Your task to perform on an android device: open chrome privacy settings Image 0: 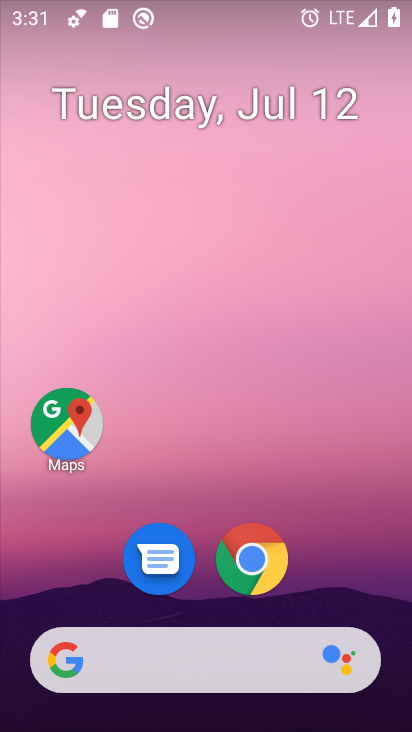
Step 0: drag from (344, 593) to (359, 77)
Your task to perform on an android device: open chrome privacy settings Image 1: 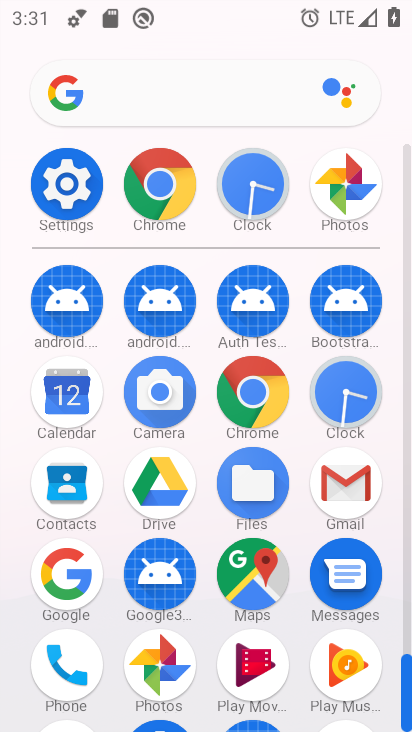
Step 1: click (267, 387)
Your task to perform on an android device: open chrome privacy settings Image 2: 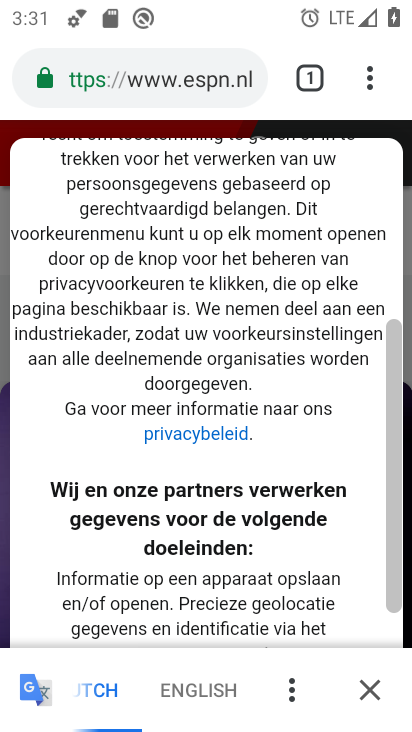
Step 2: click (369, 85)
Your task to perform on an android device: open chrome privacy settings Image 3: 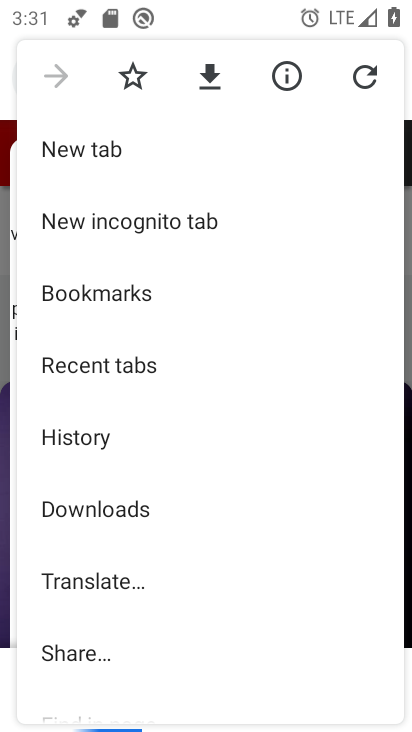
Step 3: drag from (324, 413) to (323, 341)
Your task to perform on an android device: open chrome privacy settings Image 4: 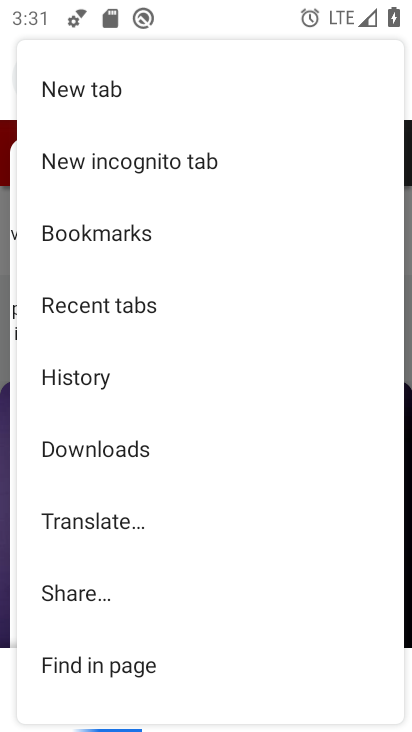
Step 4: drag from (325, 426) to (328, 344)
Your task to perform on an android device: open chrome privacy settings Image 5: 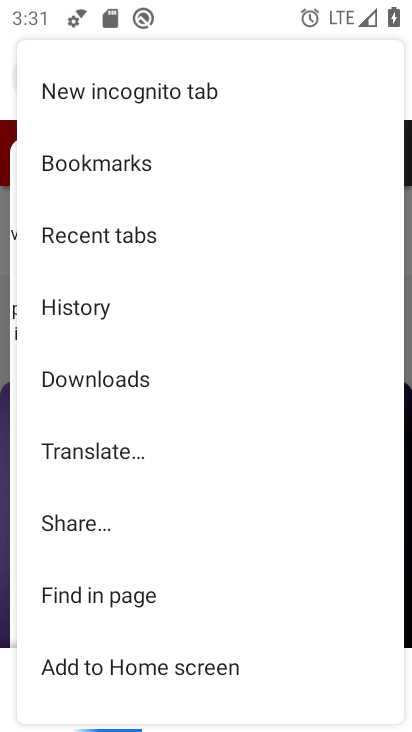
Step 5: drag from (321, 439) to (322, 273)
Your task to perform on an android device: open chrome privacy settings Image 6: 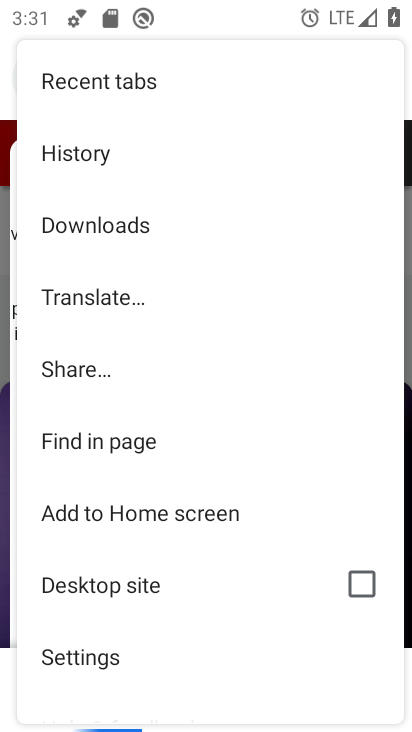
Step 6: drag from (293, 437) to (298, 310)
Your task to perform on an android device: open chrome privacy settings Image 7: 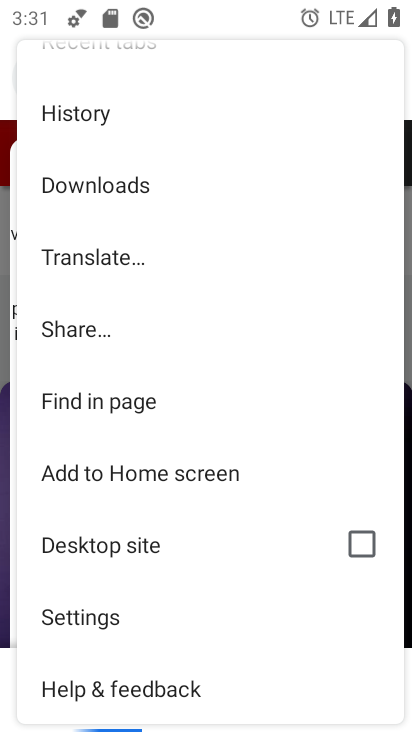
Step 7: click (176, 632)
Your task to perform on an android device: open chrome privacy settings Image 8: 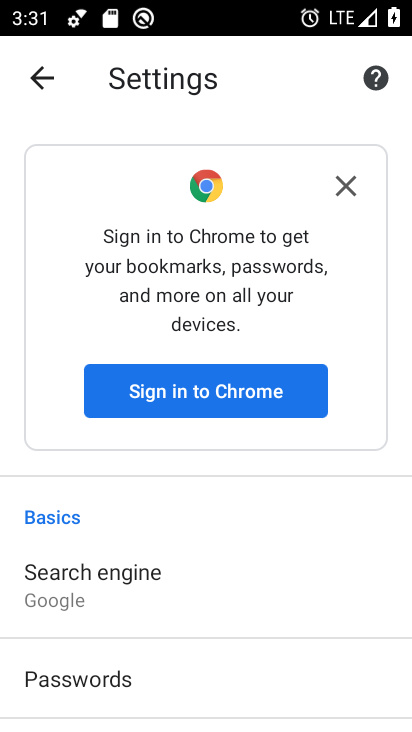
Step 8: drag from (211, 642) to (222, 587)
Your task to perform on an android device: open chrome privacy settings Image 9: 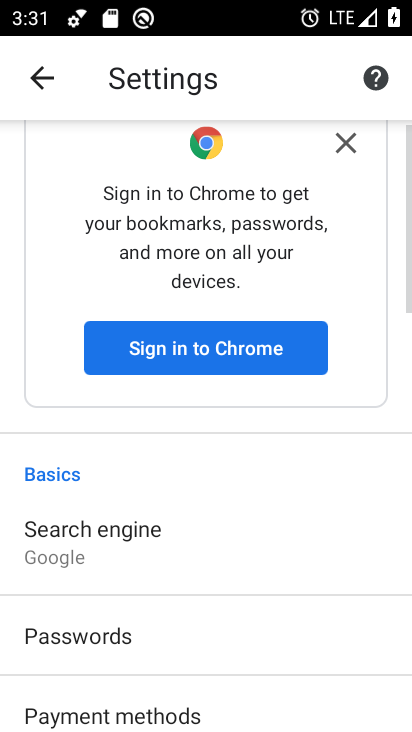
Step 9: drag from (229, 639) to (229, 588)
Your task to perform on an android device: open chrome privacy settings Image 10: 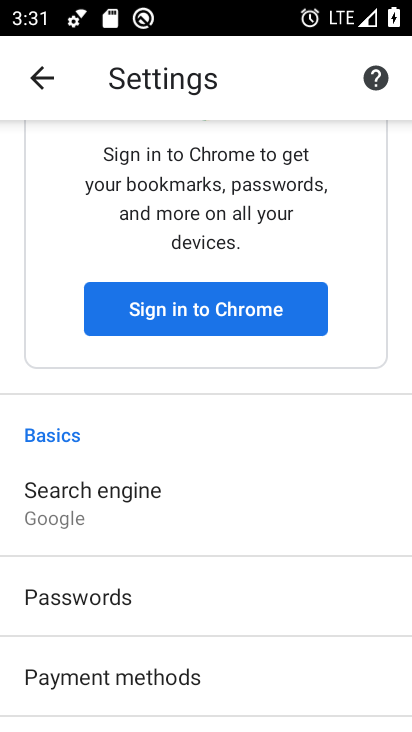
Step 10: drag from (245, 634) to (256, 553)
Your task to perform on an android device: open chrome privacy settings Image 11: 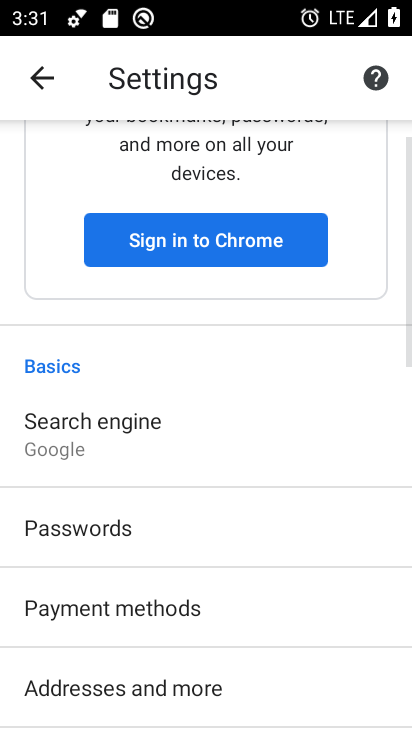
Step 11: drag from (260, 614) to (270, 539)
Your task to perform on an android device: open chrome privacy settings Image 12: 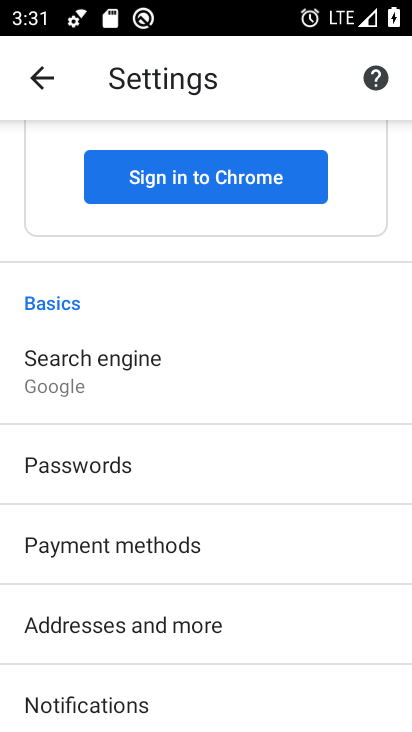
Step 12: drag from (289, 604) to (298, 531)
Your task to perform on an android device: open chrome privacy settings Image 13: 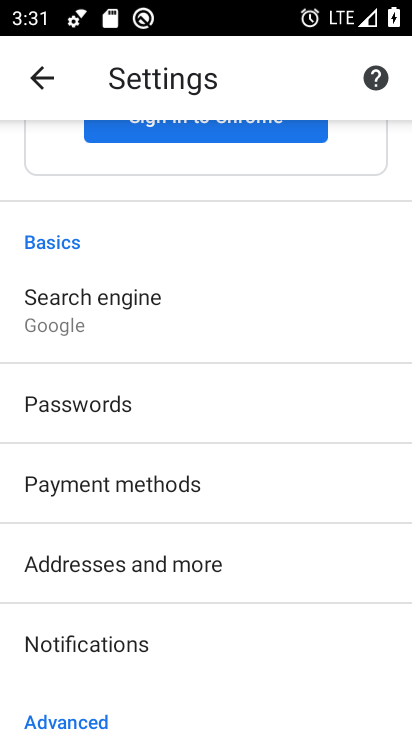
Step 13: drag from (300, 597) to (303, 526)
Your task to perform on an android device: open chrome privacy settings Image 14: 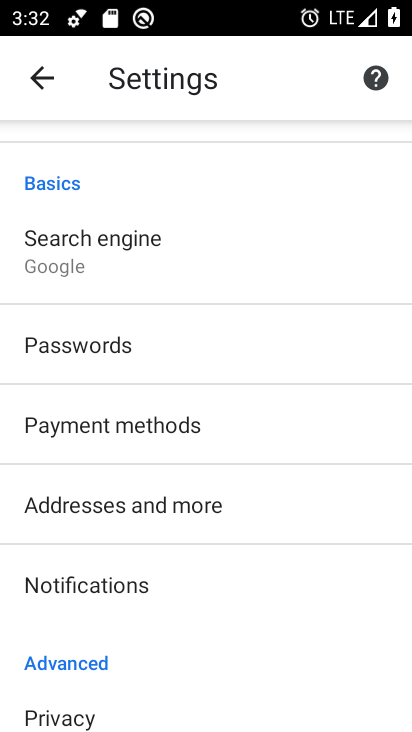
Step 14: drag from (299, 581) to (312, 495)
Your task to perform on an android device: open chrome privacy settings Image 15: 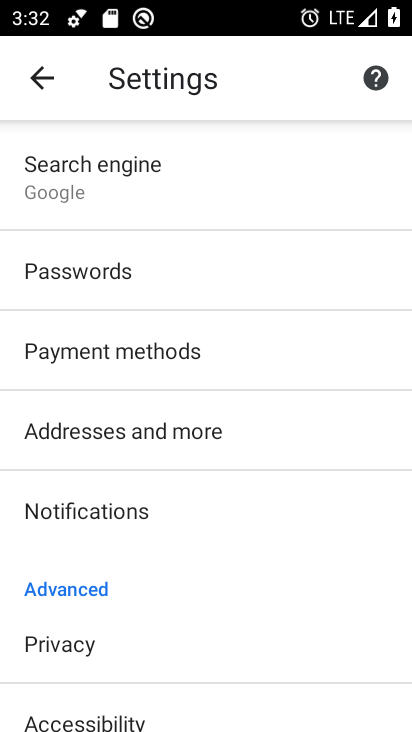
Step 15: drag from (312, 553) to (311, 457)
Your task to perform on an android device: open chrome privacy settings Image 16: 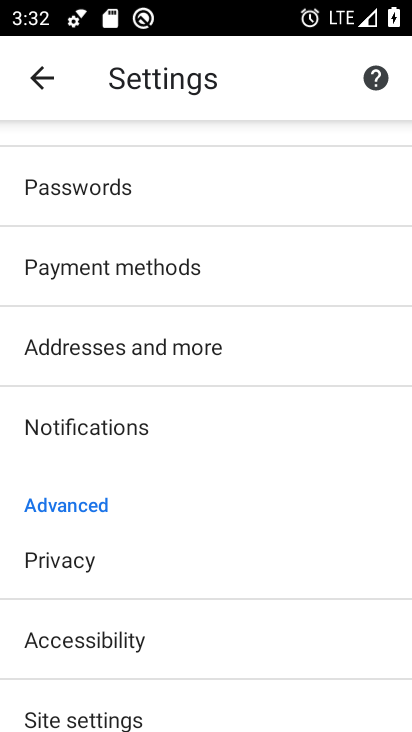
Step 16: drag from (322, 532) to (324, 465)
Your task to perform on an android device: open chrome privacy settings Image 17: 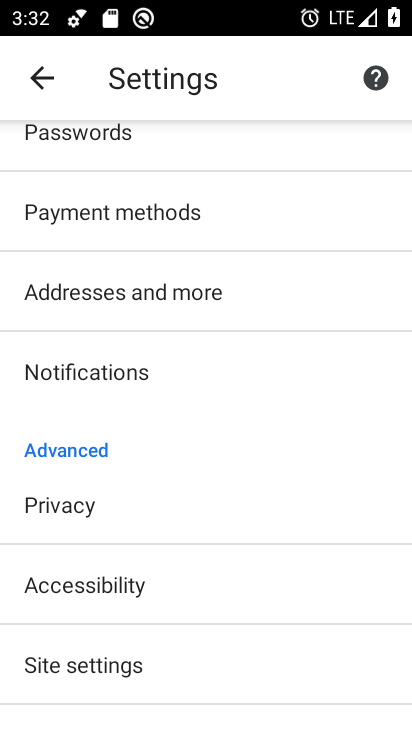
Step 17: click (278, 512)
Your task to perform on an android device: open chrome privacy settings Image 18: 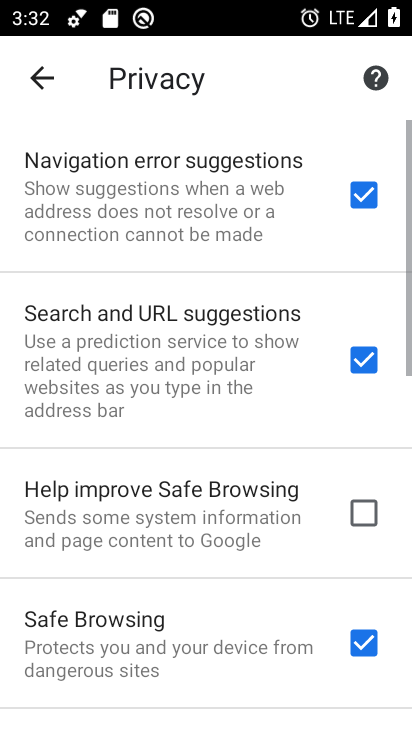
Step 18: task complete